Your task to perform on an android device: Open the calendar app, open the side menu, and click the "Day" option Image 0: 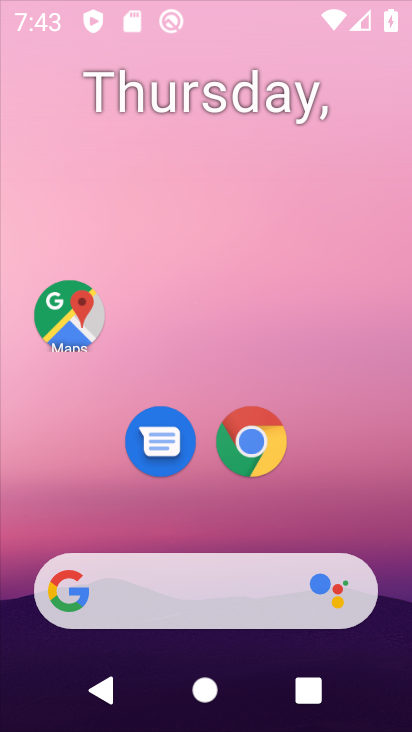
Step 0: drag from (244, 183) to (255, 130)
Your task to perform on an android device: Open the calendar app, open the side menu, and click the "Day" option Image 1: 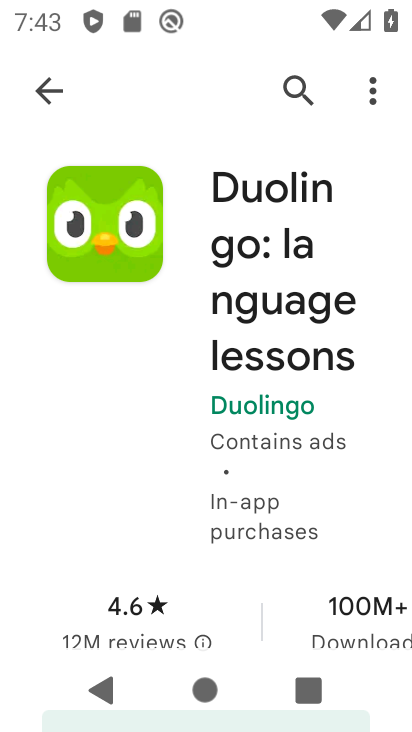
Step 1: press home button
Your task to perform on an android device: Open the calendar app, open the side menu, and click the "Day" option Image 2: 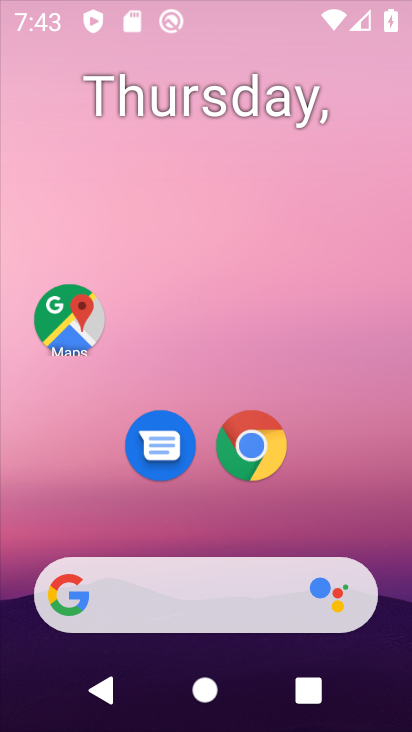
Step 2: drag from (229, 622) to (285, 163)
Your task to perform on an android device: Open the calendar app, open the side menu, and click the "Day" option Image 3: 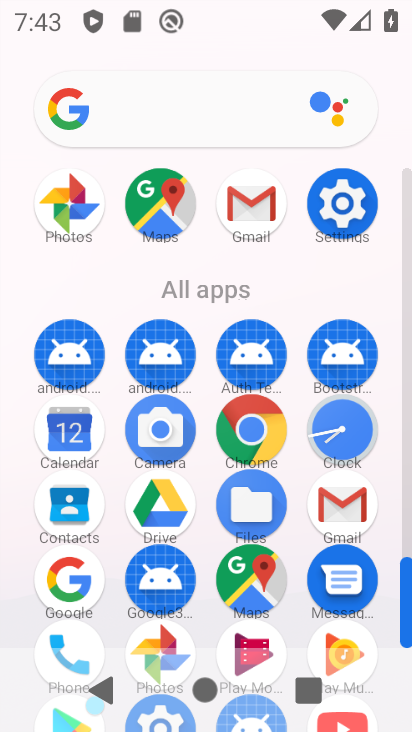
Step 3: click (69, 434)
Your task to perform on an android device: Open the calendar app, open the side menu, and click the "Day" option Image 4: 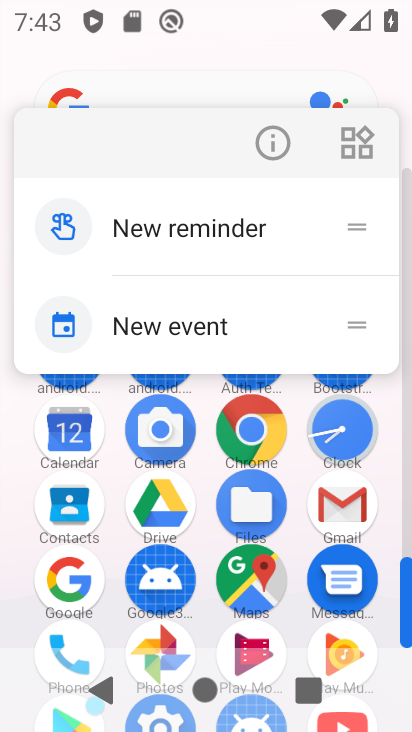
Step 4: click (270, 147)
Your task to perform on an android device: Open the calendar app, open the side menu, and click the "Day" option Image 5: 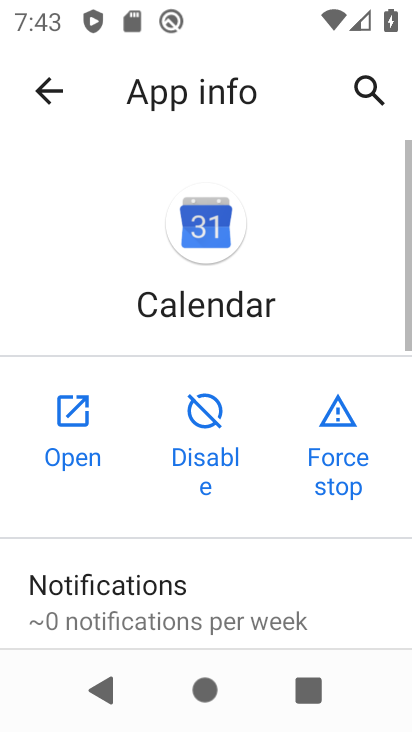
Step 5: click (83, 407)
Your task to perform on an android device: Open the calendar app, open the side menu, and click the "Day" option Image 6: 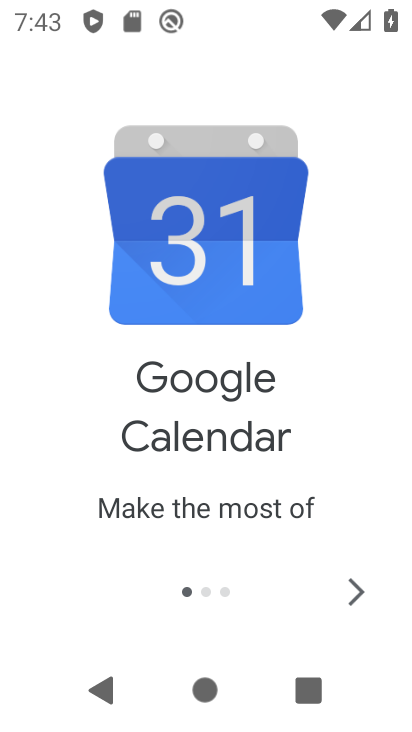
Step 6: click (346, 586)
Your task to perform on an android device: Open the calendar app, open the side menu, and click the "Day" option Image 7: 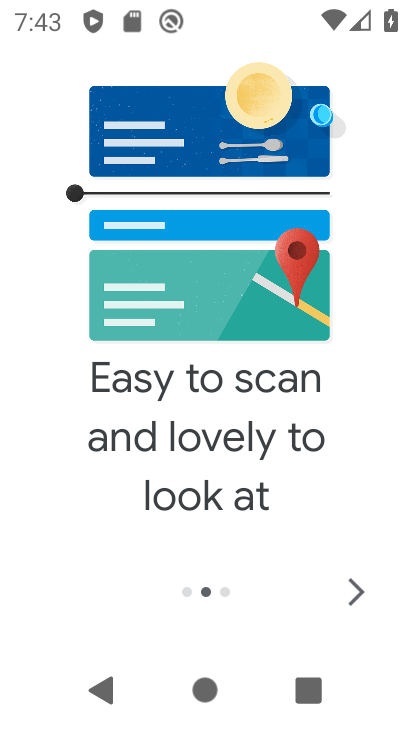
Step 7: click (351, 584)
Your task to perform on an android device: Open the calendar app, open the side menu, and click the "Day" option Image 8: 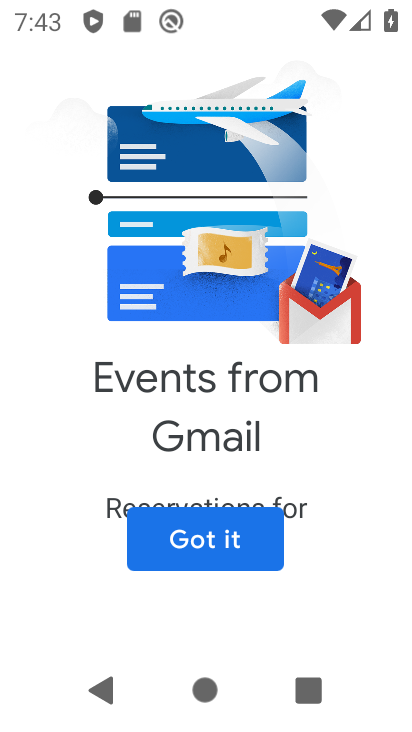
Step 8: click (351, 584)
Your task to perform on an android device: Open the calendar app, open the side menu, and click the "Day" option Image 9: 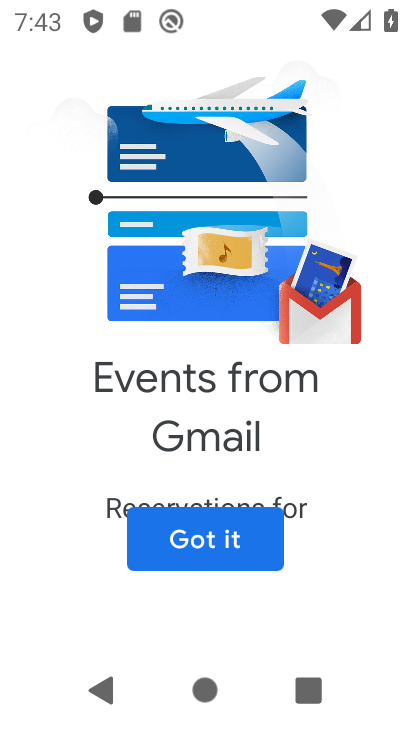
Step 9: click (194, 539)
Your task to perform on an android device: Open the calendar app, open the side menu, and click the "Day" option Image 10: 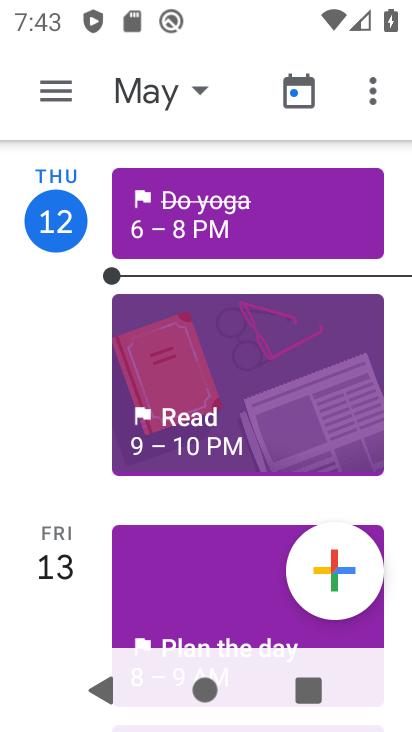
Step 10: click (331, 534)
Your task to perform on an android device: Open the calendar app, open the side menu, and click the "Day" option Image 11: 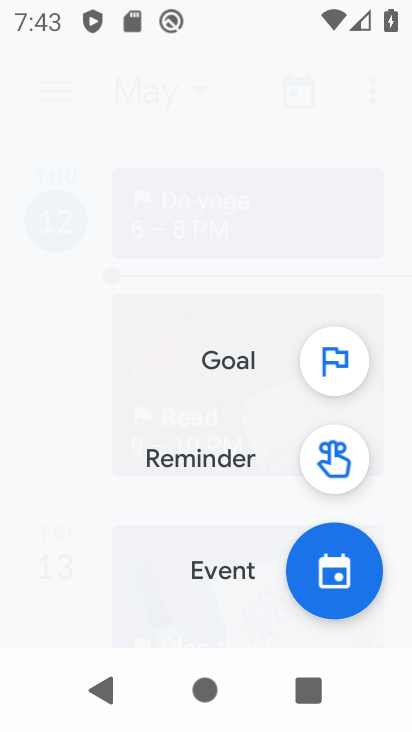
Step 11: click (102, 476)
Your task to perform on an android device: Open the calendar app, open the side menu, and click the "Day" option Image 12: 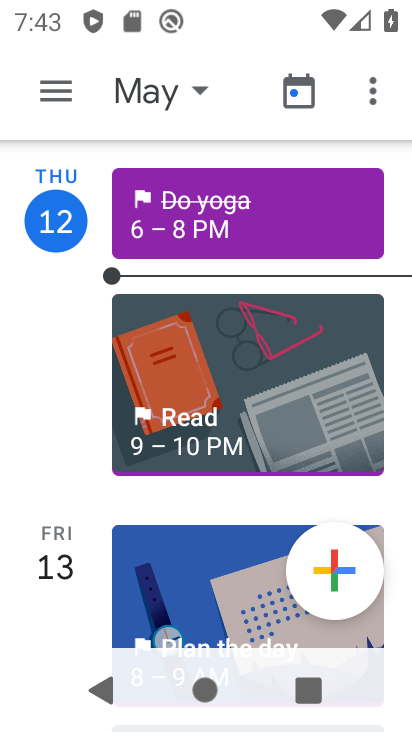
Step 12: click (92, 476)
Your task to perform on an android device: Open the calendar app, open the side menu, and click the "Day" option Image 13: 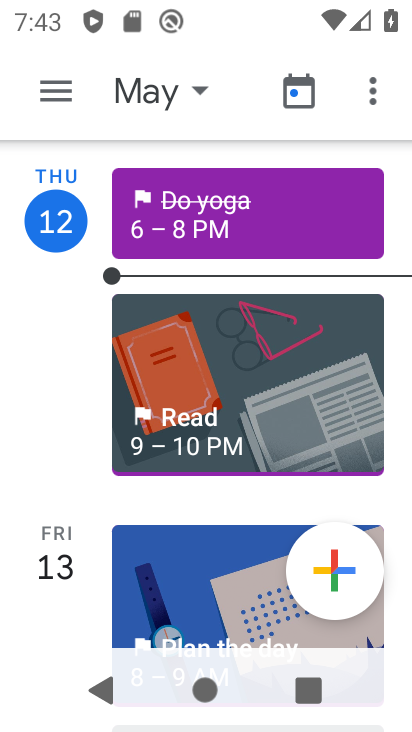
Step 13: drag from (205, 552) to (273, 302)
Your task to perform on an android device: Open the calendar app, open the side menu, and click the "Day" option Image 14: 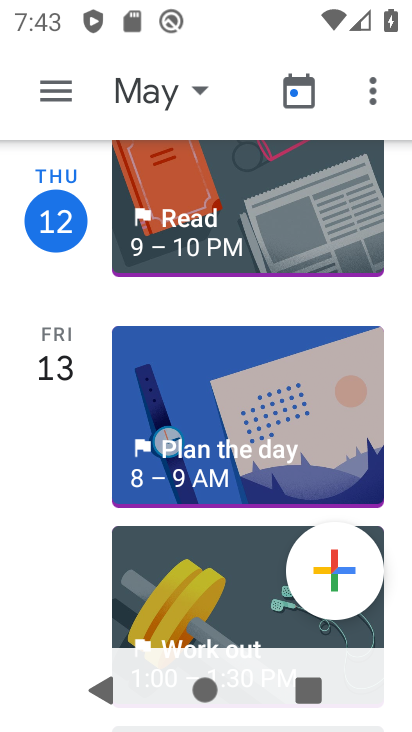
Step 14: drag from (231, 298) to (216, 641)
Your task to perform on an android device: Open the calendar app, open the side menu, and click the "Day" option Image 15: 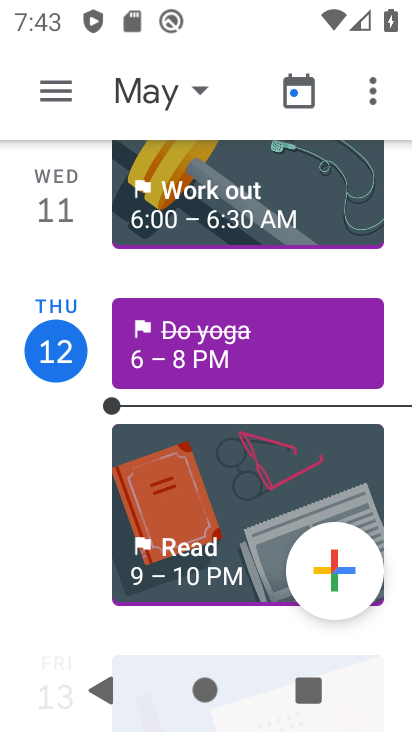
Step 15: click (64, 94)
Your task to perform on an android device: Open the calendar app, open the side menu, and click the "Day" option Image 16: 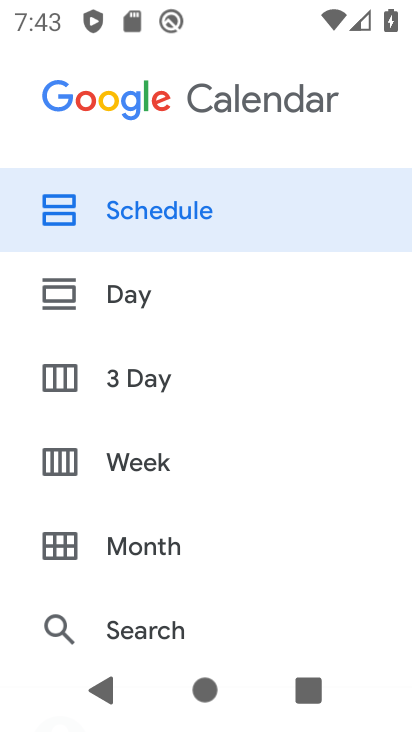
Step 16: click (132, 304)
Your task to perform on an android device: Open the calendar app, open the side menu, and click the "Day" option Image 17: 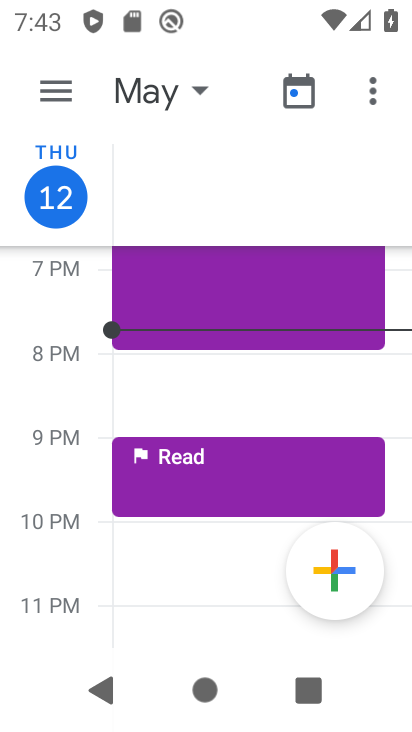
Step 17: task complete